Your task to perform on an android device: turn smart compose on in the gmail app Image 0: 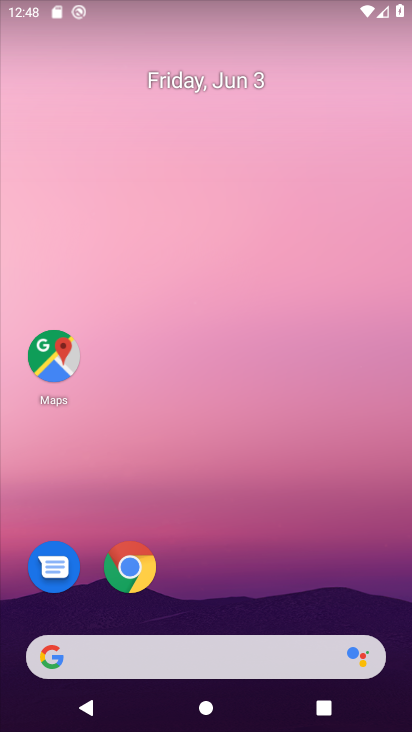
Step 0: drag from (251, 423) to (246, 260)
Your task to perform on an android device: turn smart compose on in the gmail app Image 1: 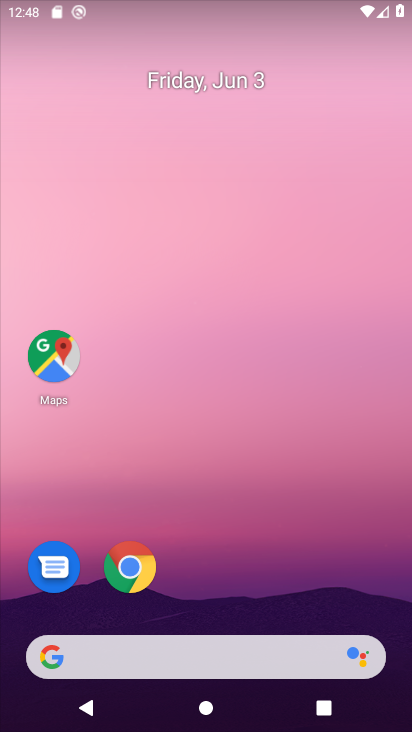
Step 1: drag from (202, 631) to (202, 263)
Your task to perform on an android device: turn smart compose on in the gmail app Image 2: 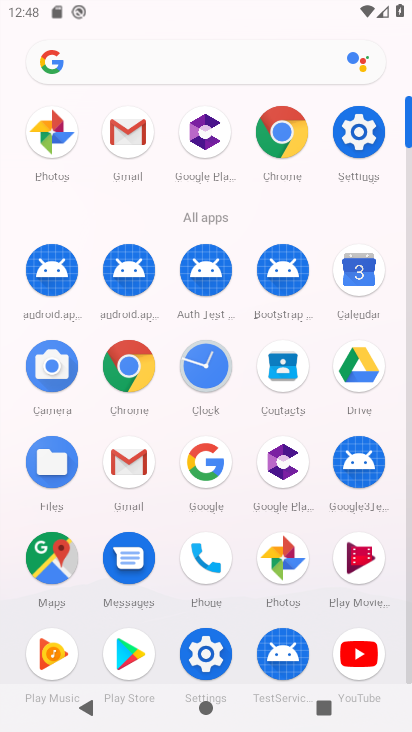
Step 2: click (116, 453)
Your task to perform on an android device: turn smart compose on in the gmail app Image 3: 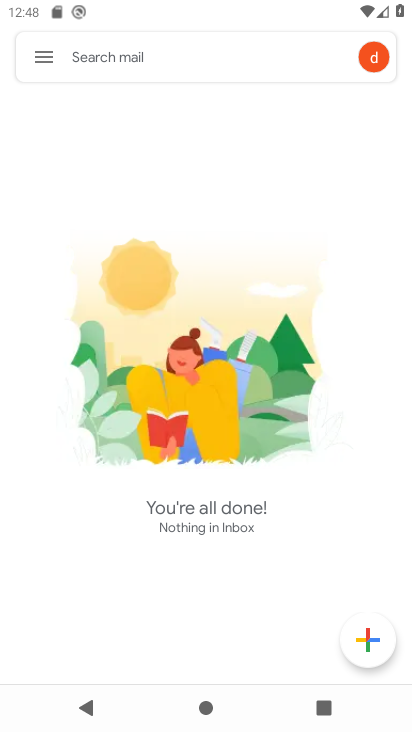
Step 3: click (44, 43)
Your task to perform on an android device: turn smart compose on in the gmail app Image 4: 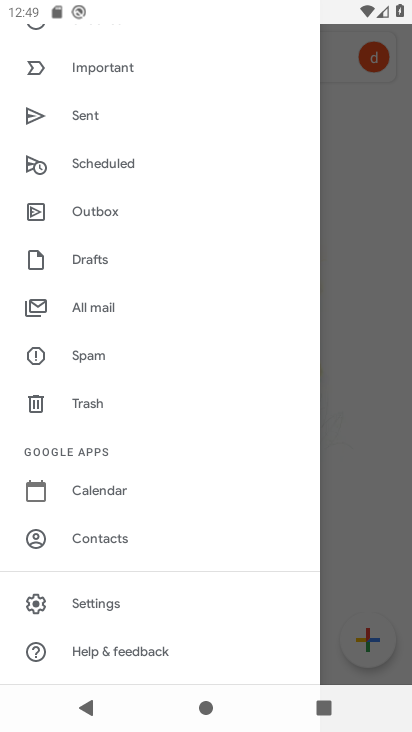
Step 4: drag from (120, 211) to (113, 440)
Your task to perform on an android device: turn smart compose on in the gmail app Image 5: 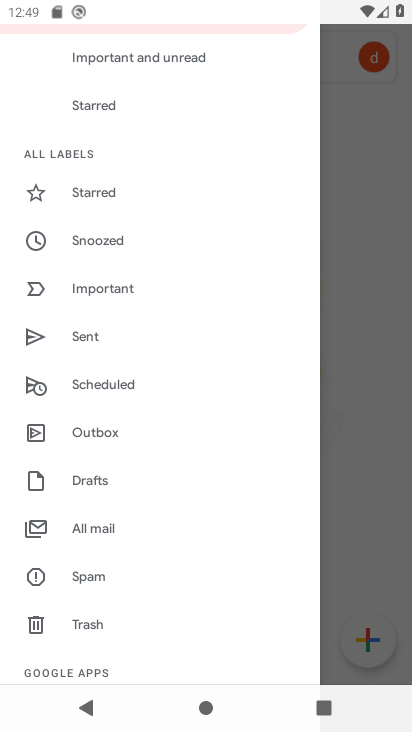
Step 5: drag from (158, 554) to (114, 104)
Your task to perform on an android device: turn smart compose on in the gmail app Image 6: 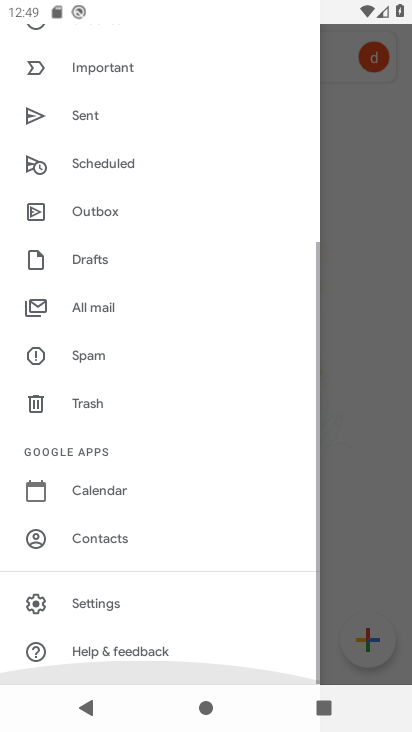
Step 6: drag from (166, 506) to (171, 311)
Your task to perform on an android device: turn smart compose on in the gmail app Image 7: 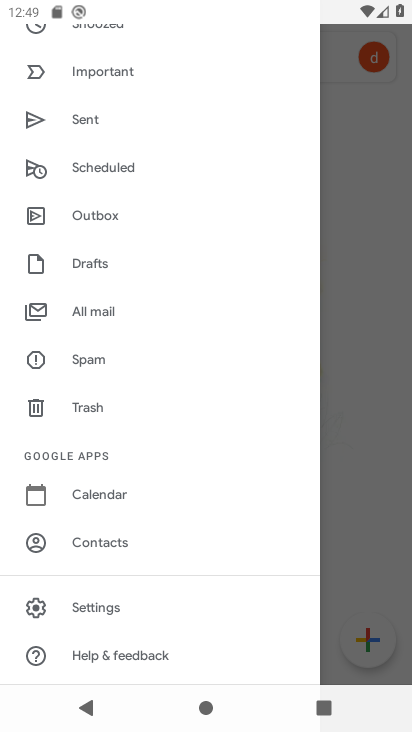
Step 7: drag from (95, 490) to (154, 131)
Your task to perform on an android device: turn smart compose on in the gmail app Image 8: 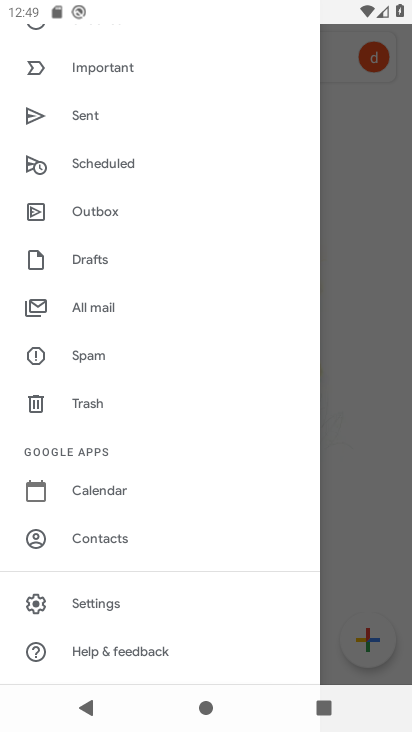
Step 8: click (110, 612)
Your task to perform on an android device: turn smart compose on in the gmail app Image 9: 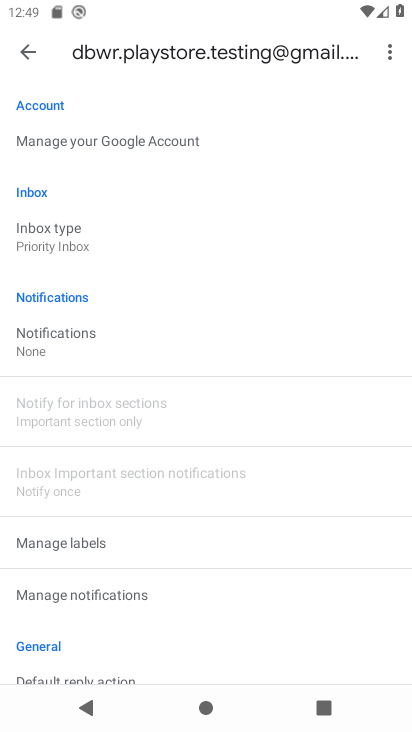
Step 9: task complete